Your task to perform on an android device: Open display settings Image 0: 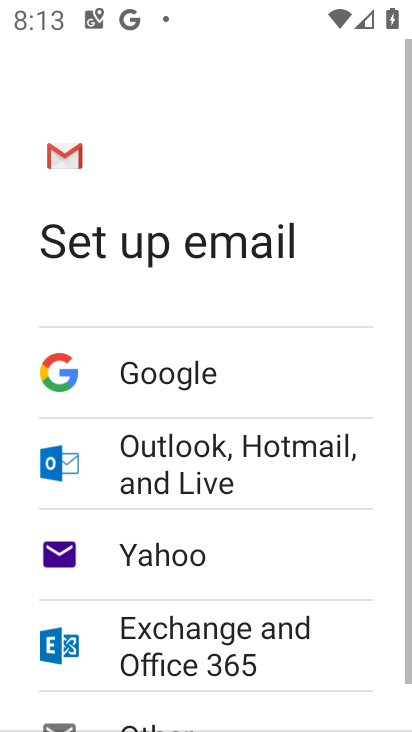
Step 0: press home button
Your task to perform on an android device: Open display settings Image 1: 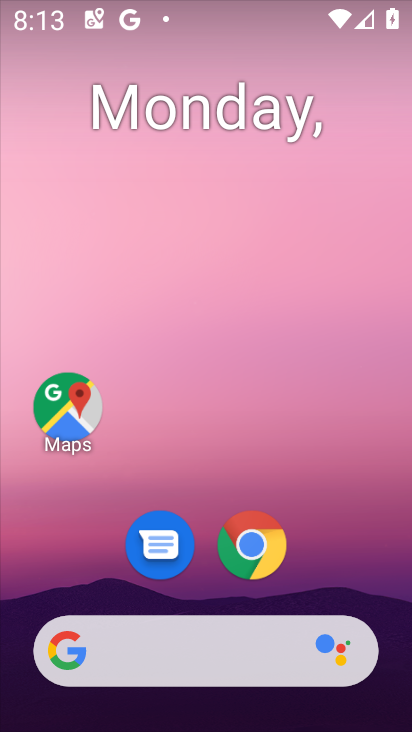
Step 1: drag from (181, 643) to (278, 120)
Your task to perform on an android device: Open display settings Image 2: 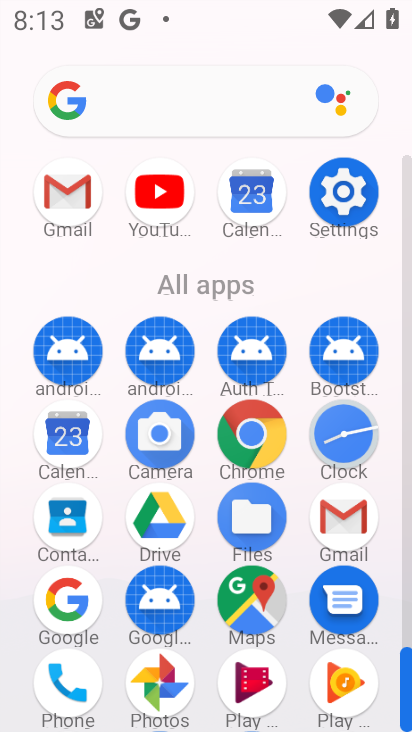
Step 2: click (338, 199)
Your task to perform on an android device: Open display settings Image 3: 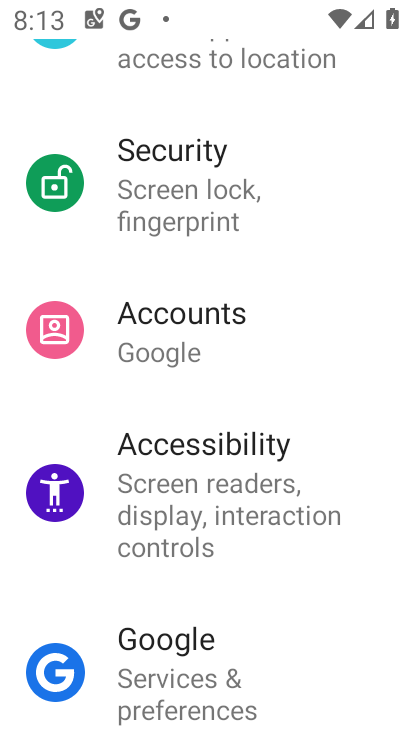
Step 3: drag from (325, 227) to (270, 678)
Your task to perform on an android device: Open display settings Image 4: 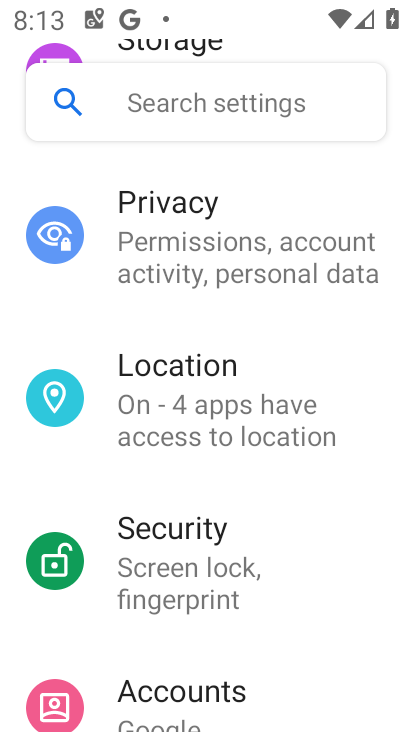
Step 4: drag from (324, 172) to (296, 576)
Your task to perform on an android device: Open display settings Image 5: 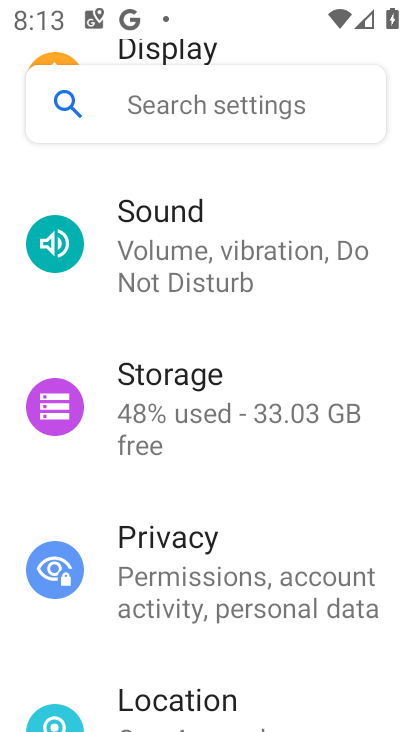
Step 5: drag from (310, 186) to (315, 494)
Your task to perform on an android device: Open display settings Image 6: 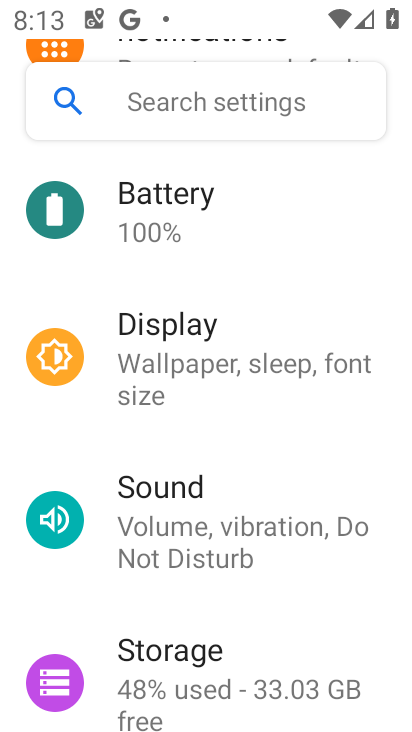
Step 6: click (215, 352)
Your task to perform on an android device: Open display settings Image 7: 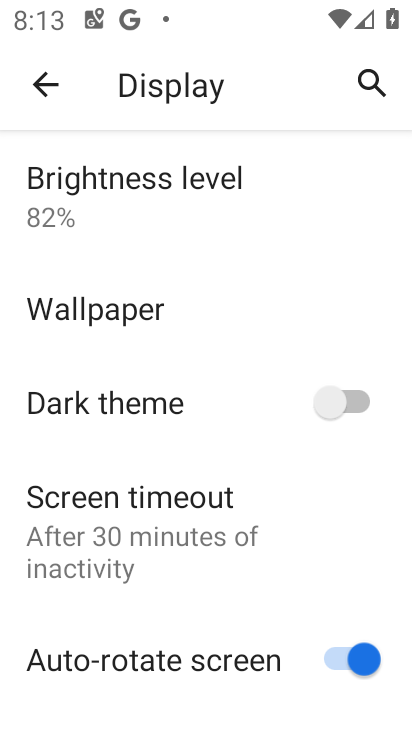
Step 7: task complete